Your task to perform on an android device: What is the recent news? Image 0: 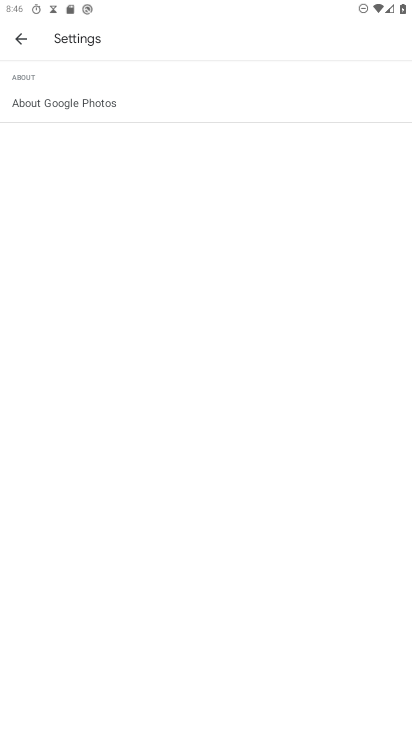
Step 0: press home button
Your task to perform on an android device: What is the recent news? Image 1: 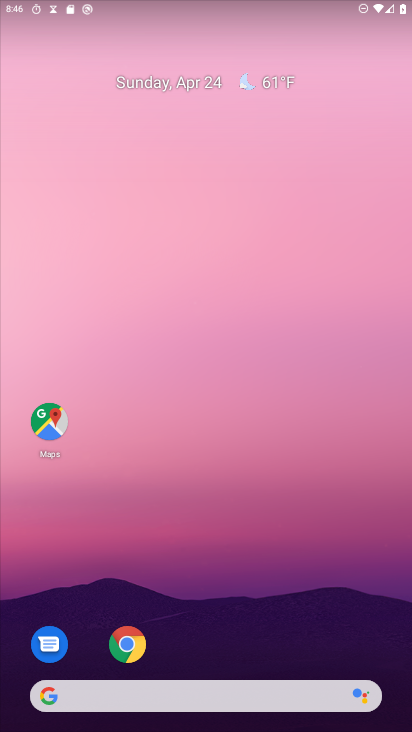
Step 1: task complete